Your task to perform on an android device: turn off notifications in google photos Image 0: 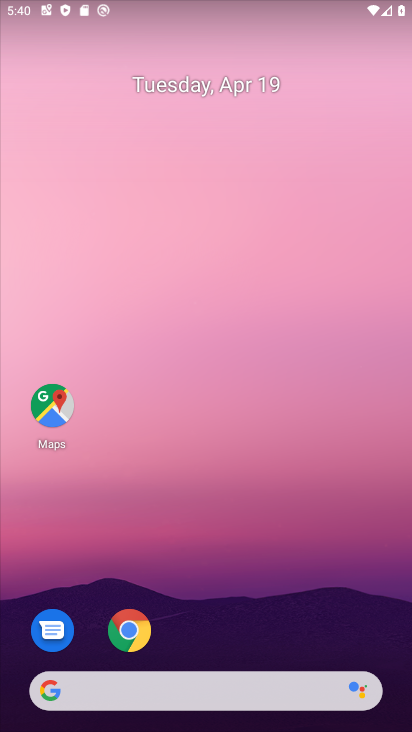
Step 0: drag from (221, 605) to (347, 0)
Your task to perform on an android device: turn off notifications in google photos Image 1: 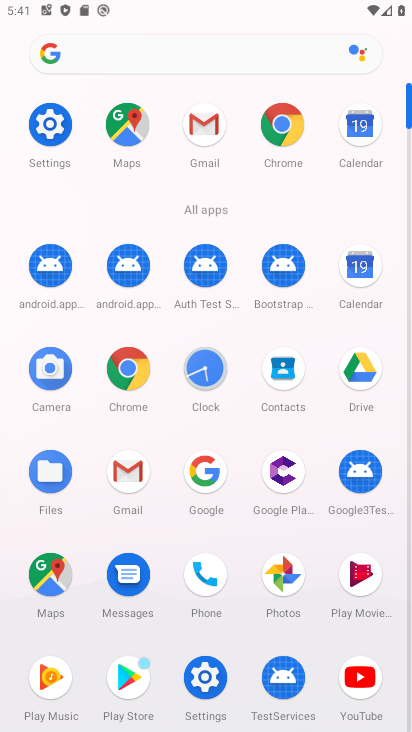
Step 1: click (273, 591)
Your task to perform on an android device: turn off notifications in google photos Image 2: 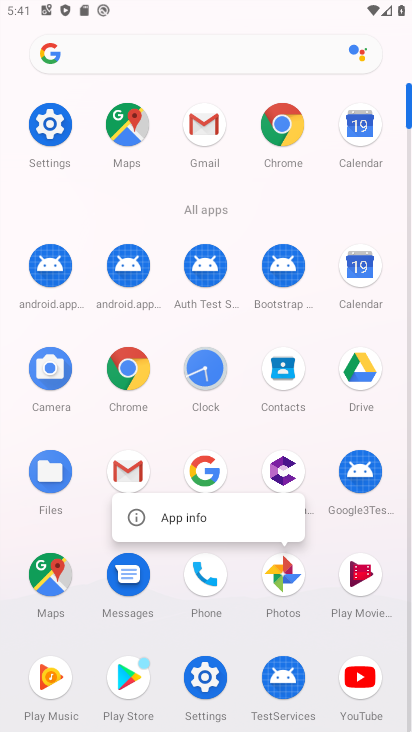
Step 2: click (282, 567)
Your task to perform on an android device: turn off notifications in google photos Image 3: 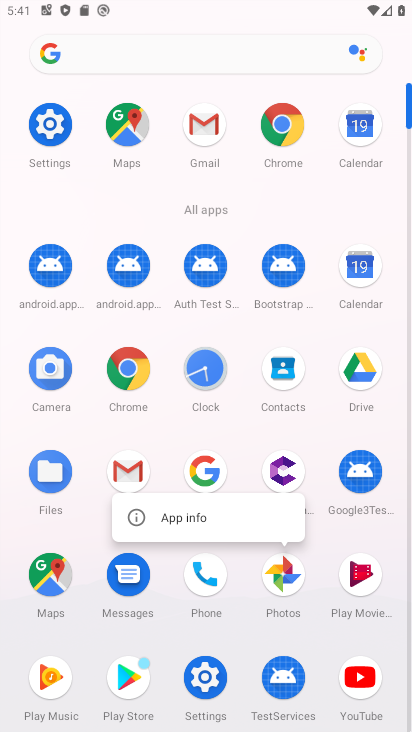
Step 3: click (282, 567)
Your task to perform on an android device: turn off notifications in google photos Image 4: 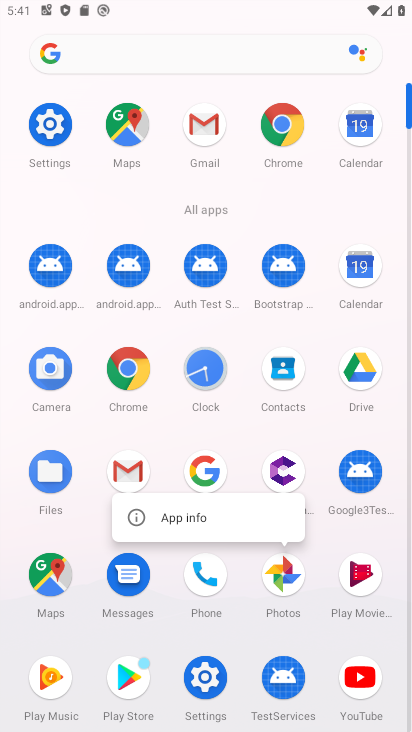
Step 4: click (282, 567)
Your task to perform on an android device: turn off notifications in google photos Image 5: 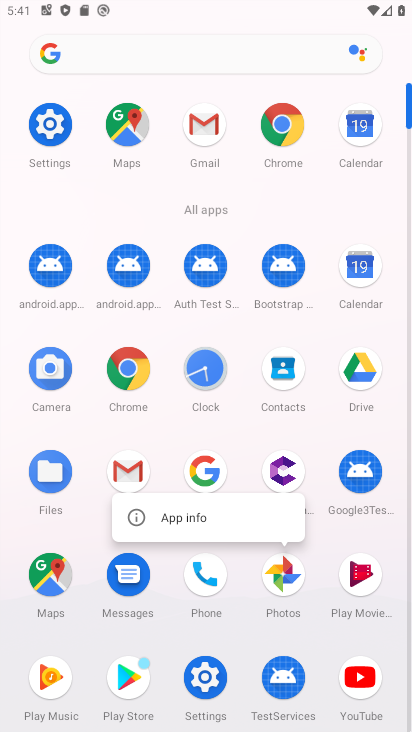
Step 5: click (281, 576)
Your task to perform on an android device: turn off notifications in google photos Image 6: 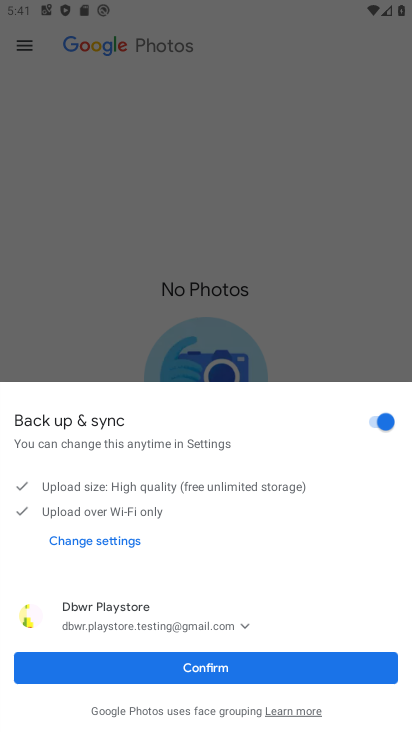
Step 6: click (363, 663)
Your task to perform on an android device: turn off notifications in google photos Image 7: 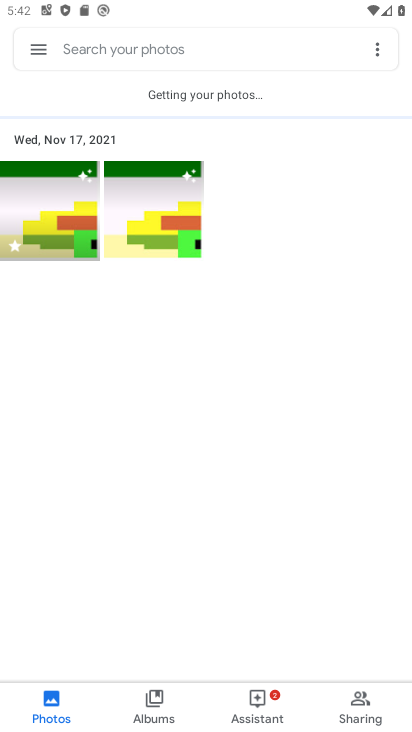
Step 7: press home button
Your task to perform on an android device: turn off notifications in google photos Image 8: 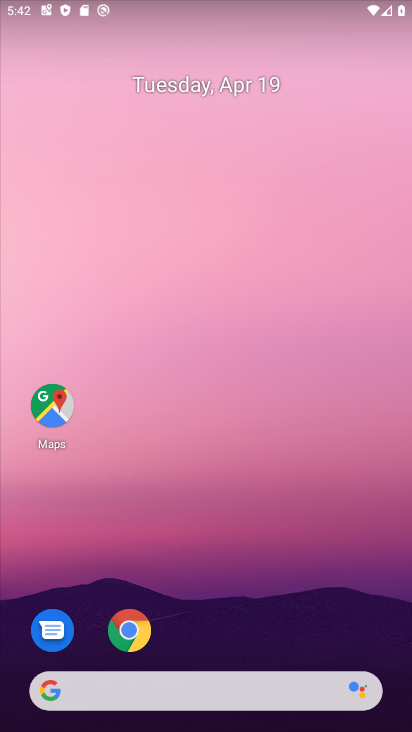
Step 8: drag from (321, 614) to (275, 92)
Your task to perform on an android device: turn off notifications in google photos Image 9: 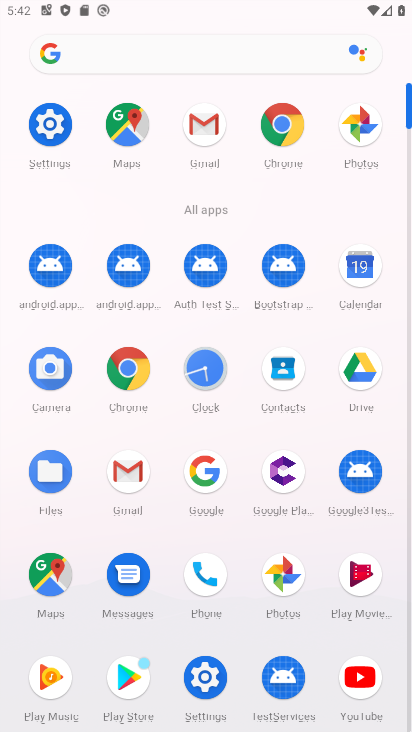
Step 9: click (356, 121)
Your task to perform on an android device: turn off notifications in google photos Image 10: 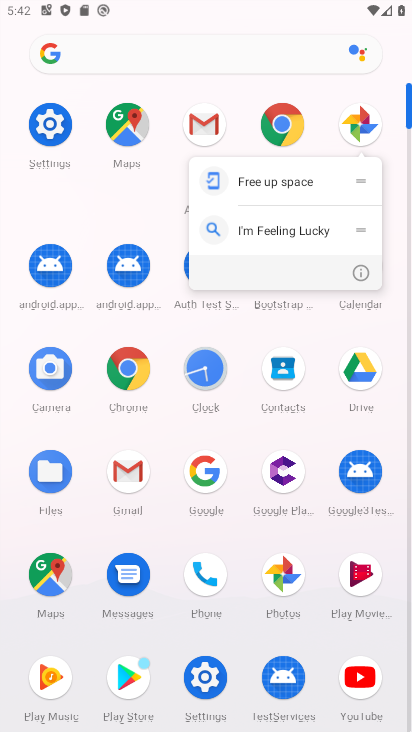
Step 10: click (361, 278)
Your task to perform on an android device: turn off notifications in google photos Image 11: 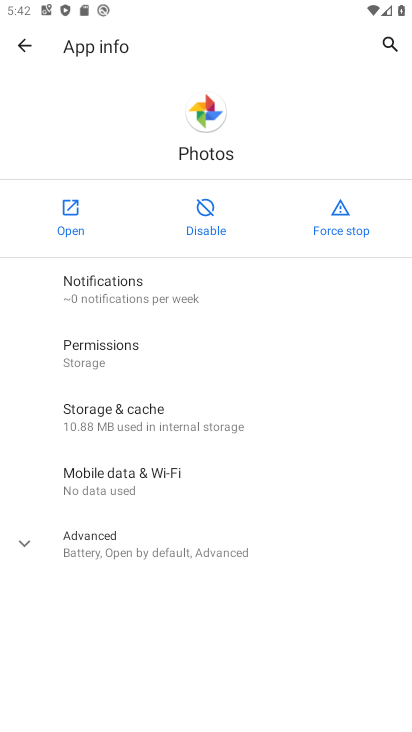
Step 11: click (139, 278)
Your task to perform on an android device: turn off notifications in google photos Image 12: 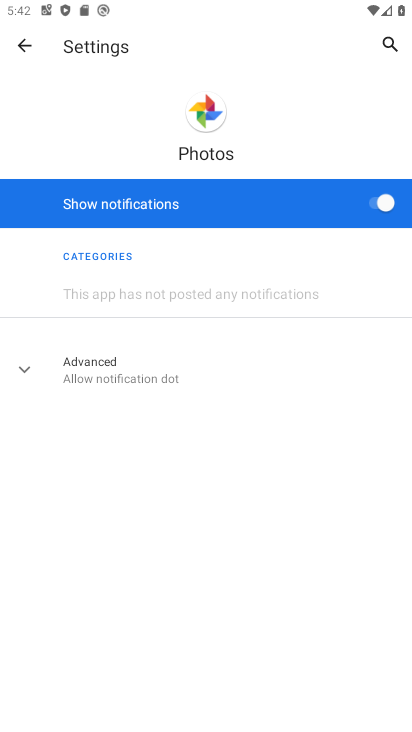
Step 12: click (389, 197)
Your task to perform on an android device: turn off notifications in google photos Image 13: 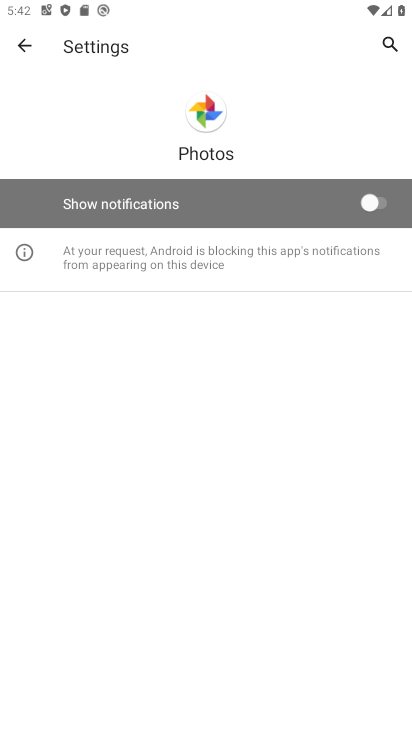
Step 13: task complete